Your task to perform on an android device: Open Chrome and go to settings Image 0: 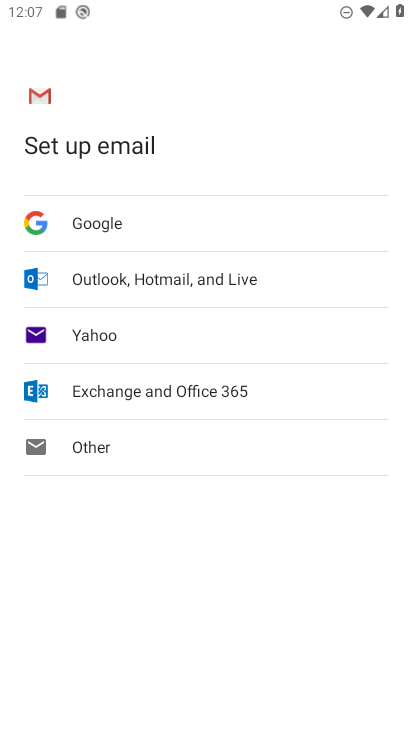
Step 0: press home button
Your task to perform on an android device: Open Chrome and go to settings Image 1: 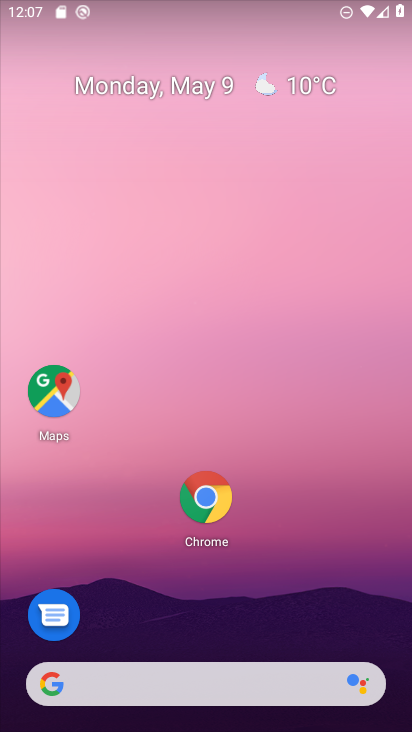
Step 1: drag from (311, 521) to (256, 74)
Your task to perform on an android device: Open Chrome and go to settings Image 2: 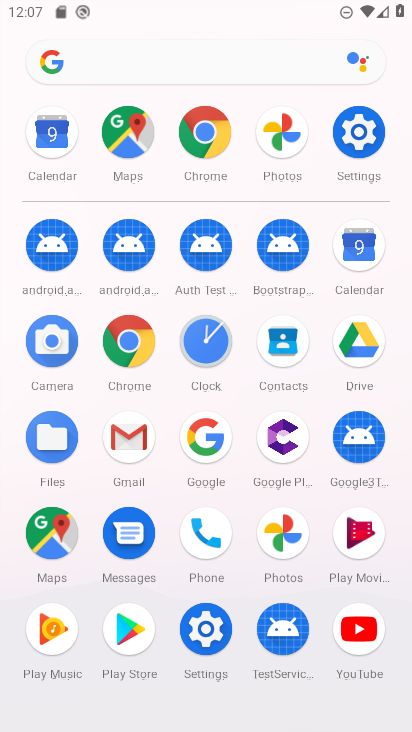
Step 2: click (354, 119)
Your task to perform on an android device: Open Chrome and go to settings Image 3: 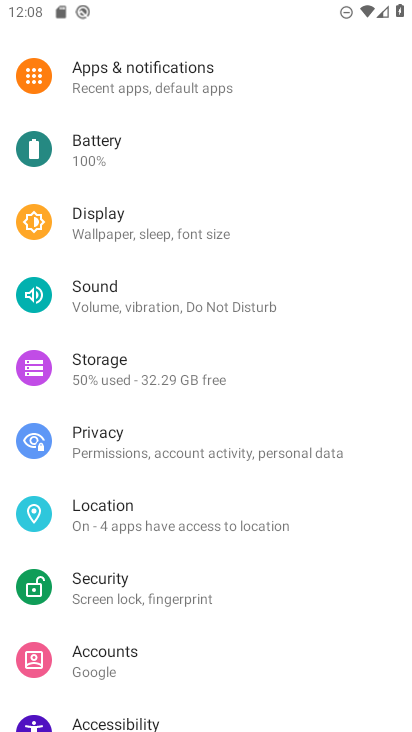
Step 3: task complete